Your task to perform on an android device: Check the news Image 0: 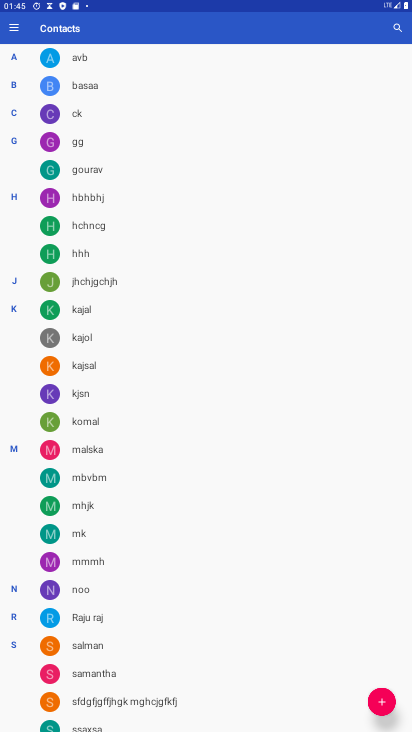
Step 0: press home button
Your task to perform on an android device: Check the news Image 1: 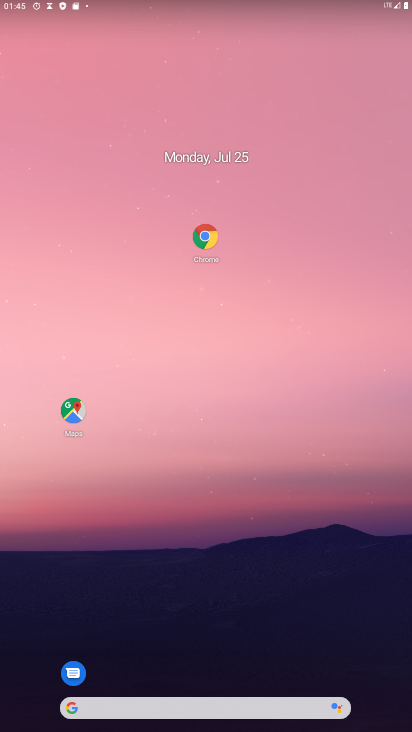
Step 1: drag from (268, 699) to (236, 14)
Your task to perform on an android device: Check the news Image 2: 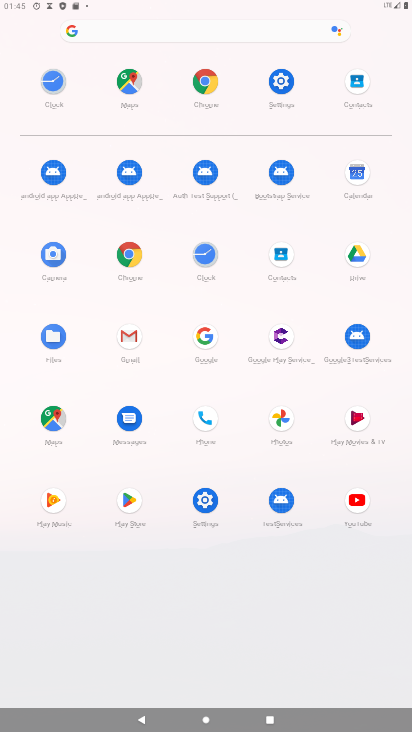
Step 2: click (131, 251)
Your task to perform on an android device: Check the news Image 3: 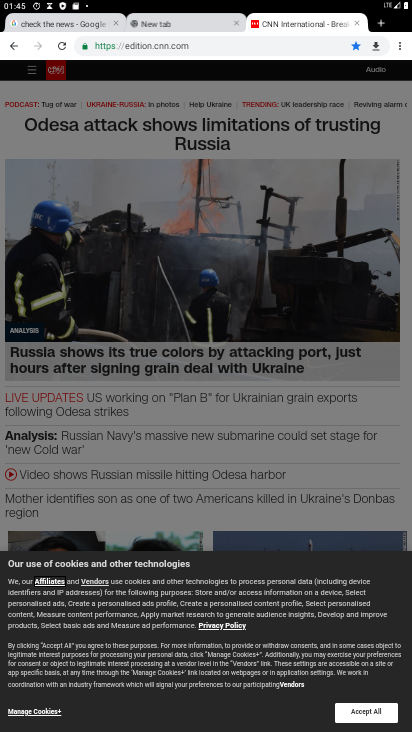
Step 3: click (267, 44)
Your task to perform on an android device: Check the news Image 4: 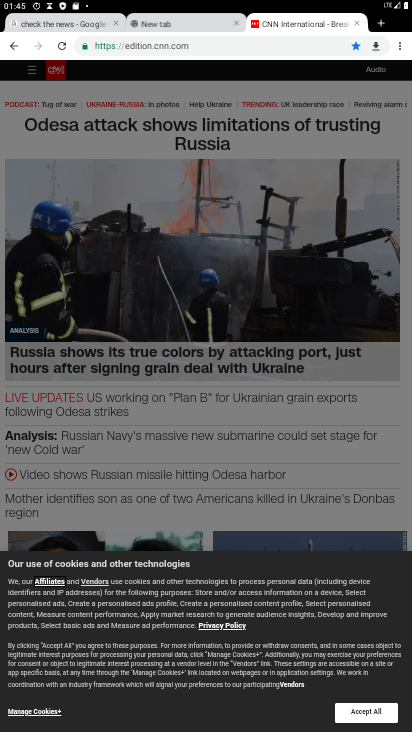
Step 4: click (267, 44)
Your task to perform on an android device: Check the news Image 5: 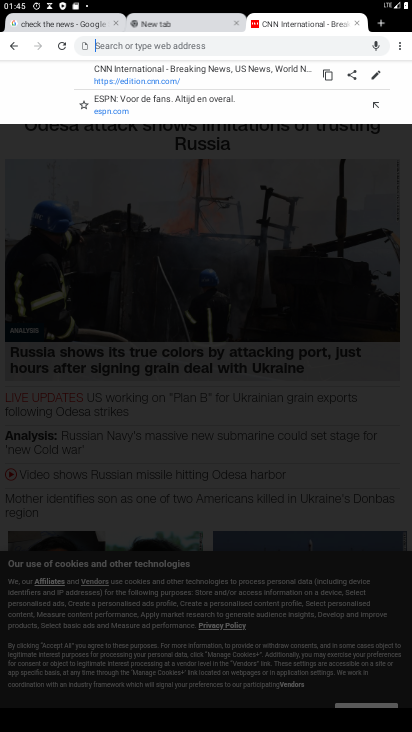
Step 5: type "check the news"
Your task to perform on an android device: Check the news Image 6: 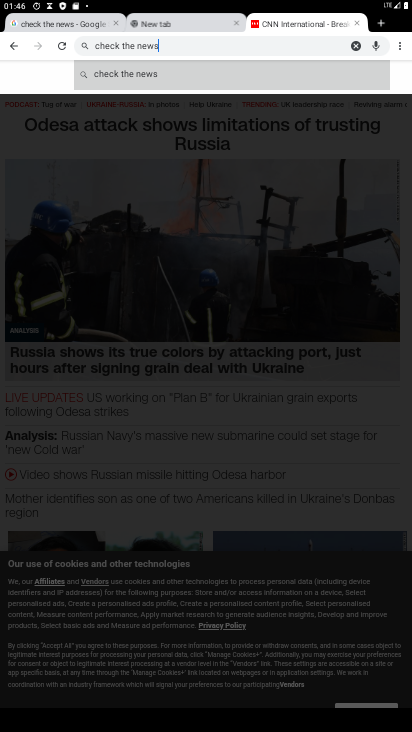
Step 6: click (123, 75)
Your task to perform on an android device: Check the news Image 7: 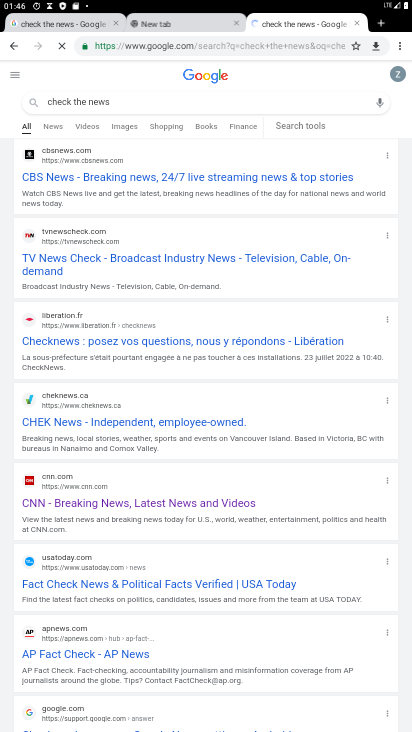
Step 7: task complete